Your task to perform on an android device: set the timer Image 0: 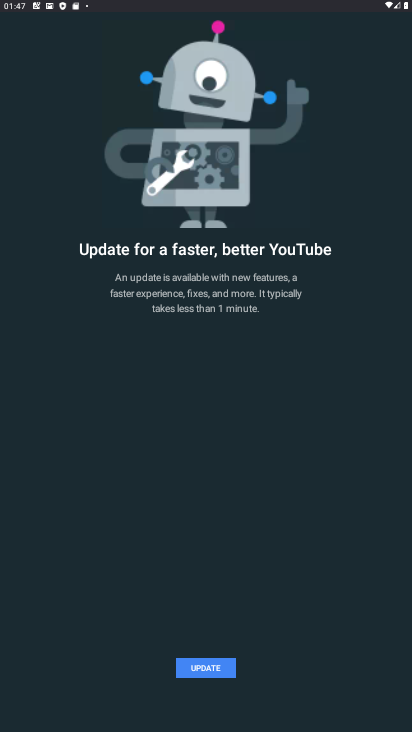
Step 0: press home button
Your task to perform on an android device: set the timer Image 1: 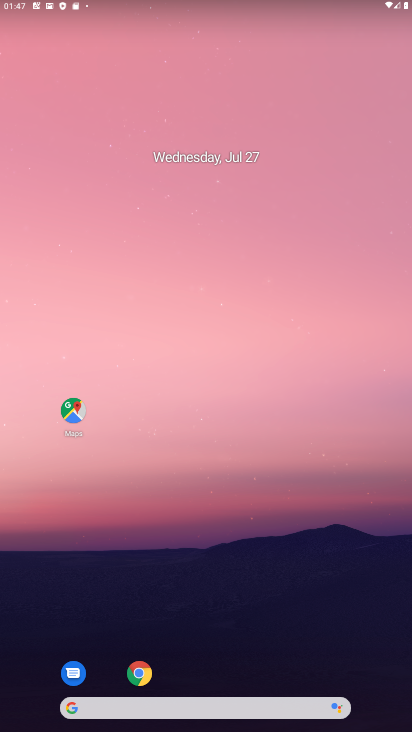
Step 1: drag from (173, 682) to (168, 114)
Your task to perform on an android device: set the timer Image 2: 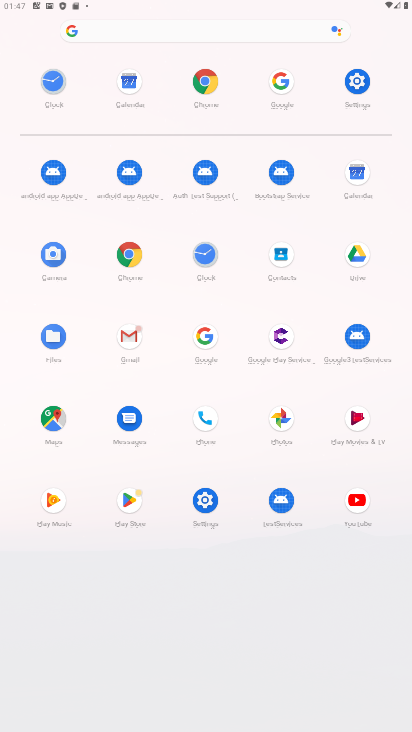
Step 2: click (209, 250)
Your task to perform on an android device: set the timer Image 3: 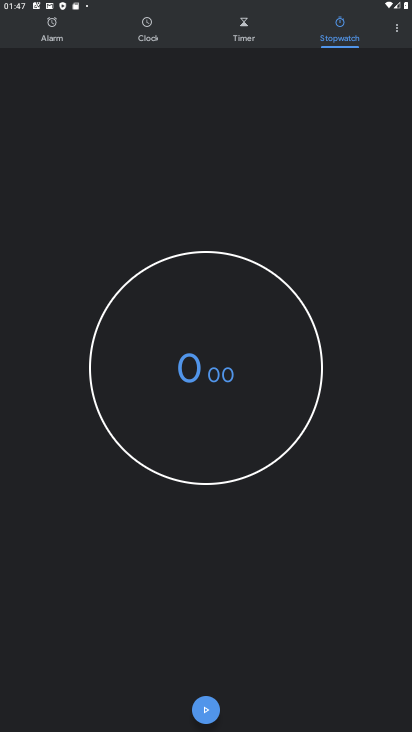
Step 3: click (240, 32)
Your task to perform on an android device: set the timer Image 4: 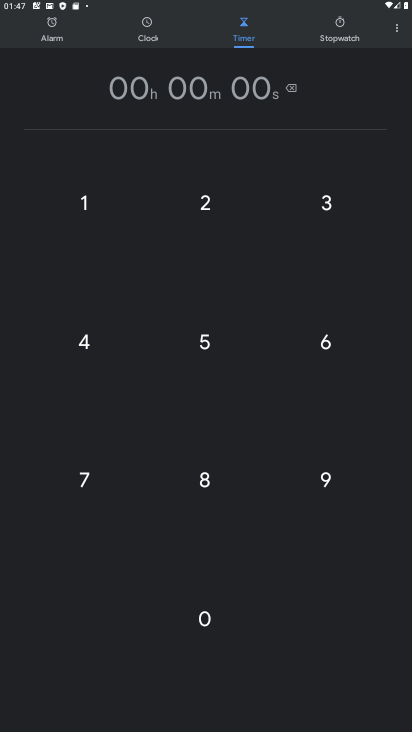
Step 4: click (192, 94)
Your task to perform on an android device: set the timer Image 5: 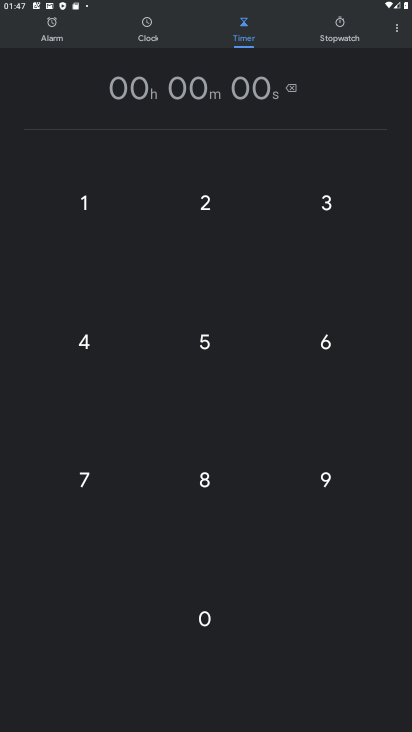
Step 5: type "98989898989 "
Your task to perform on an android device: set the timer Image 6: 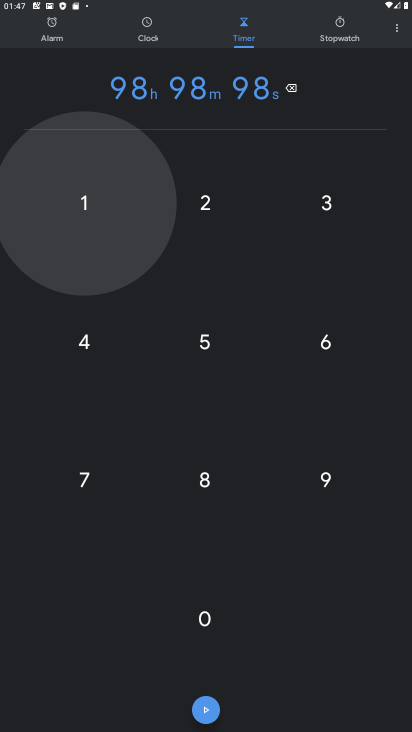
Step 6: click (192, 705)
Your task to perform on an android device: set the timer Image 7: 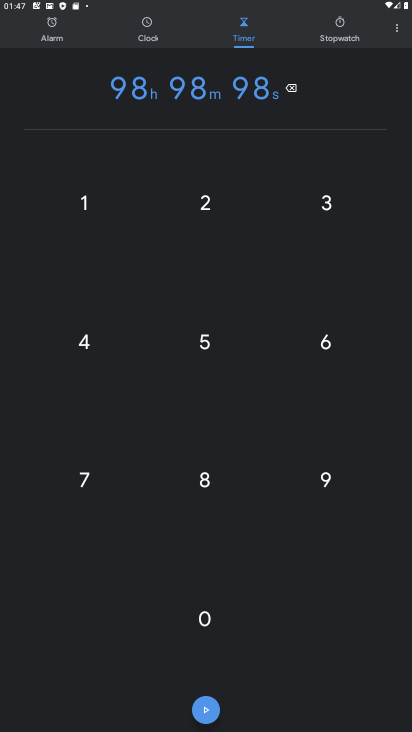
Step 7: click (219, 706)
Your task to perform on an android device: set the timer Image 8: 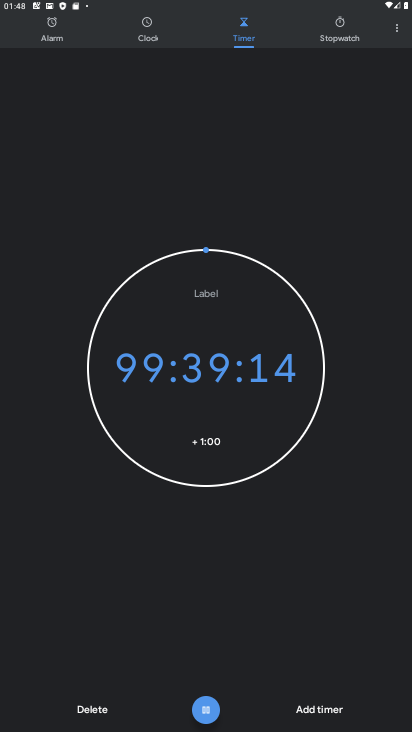
Step 8: task complete